Your task to perform on an android device: toggle location history Image 0: 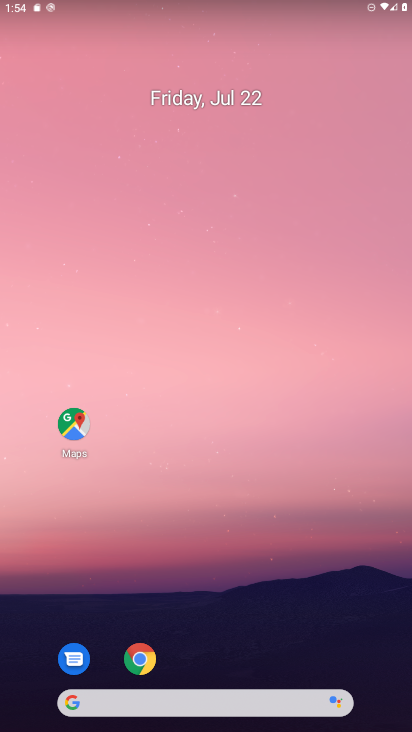
Step 0: drag from (215, 705) to (228, 59)
Your task to perform on an android device: toggle location history Image 1: 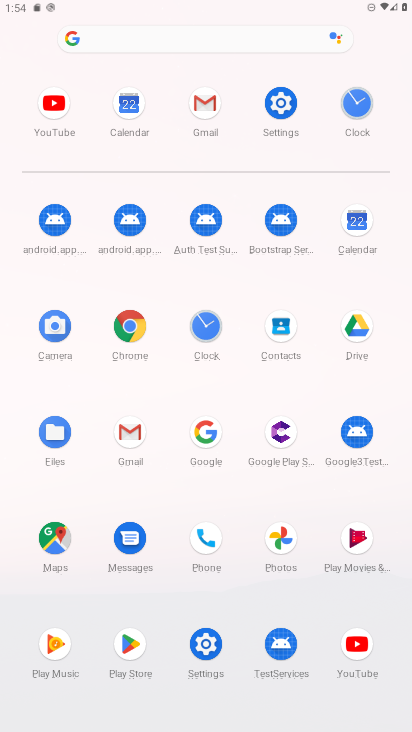
Step 1: click (281, 103)
Your task to perform on an android device: toggle location history Image 2: 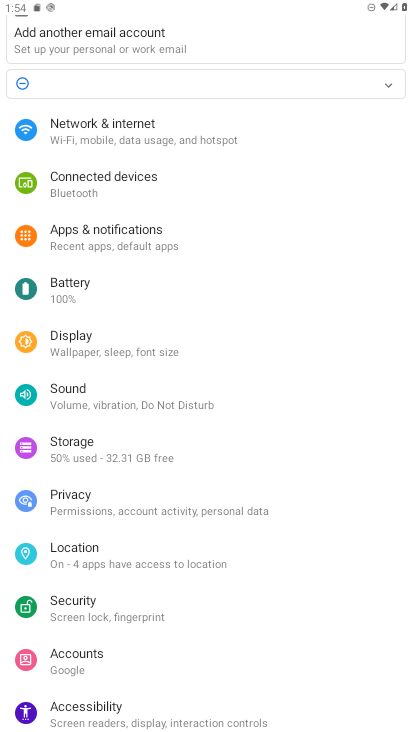
Step 2: click (85, 554)
Your task to perform on an android device: toggle location history Image 3: 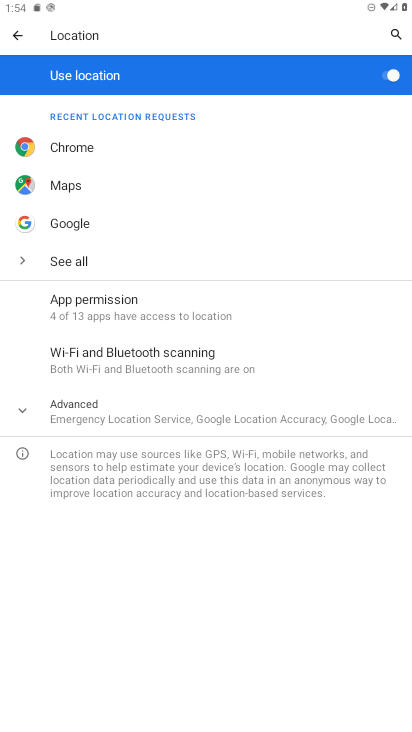
Step 3: click (148, 418)
Your task to perform on an android device: toggle location history Image 4: 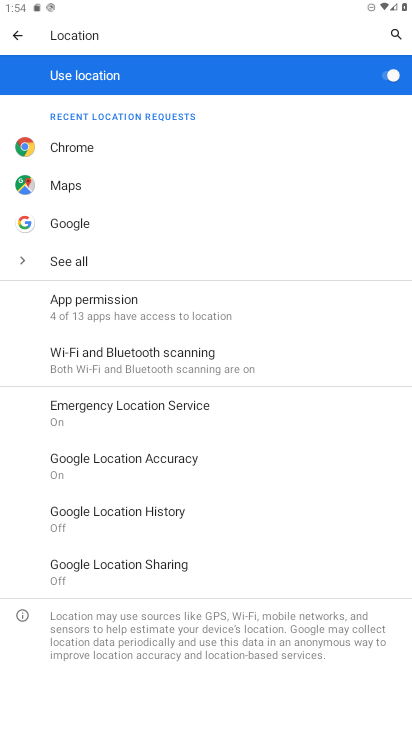
Step 4: click (142, 516)
Your task to perform on an android device: toggle location history Image 5: 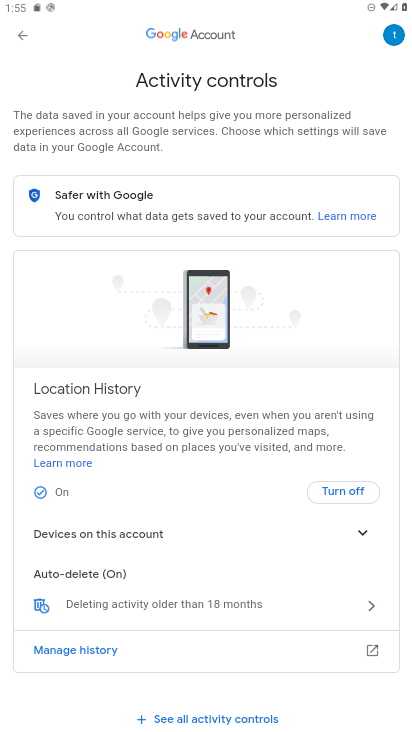
Step 5: task complete